Your task to perform on an android device: Open Google Image 0: 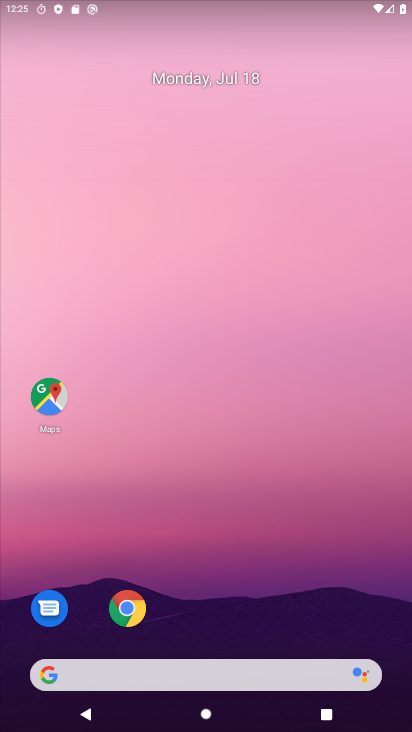
Step 0: drag from (248, 455) to (347, 10)
Your task to perform on an android device: Open Google Image 1: 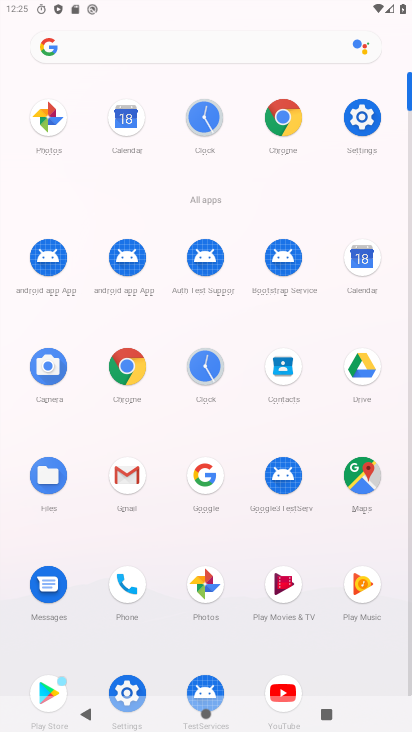
Step 1: click (215, 485)
Your task to perform on an android device: Open Google Image 2: 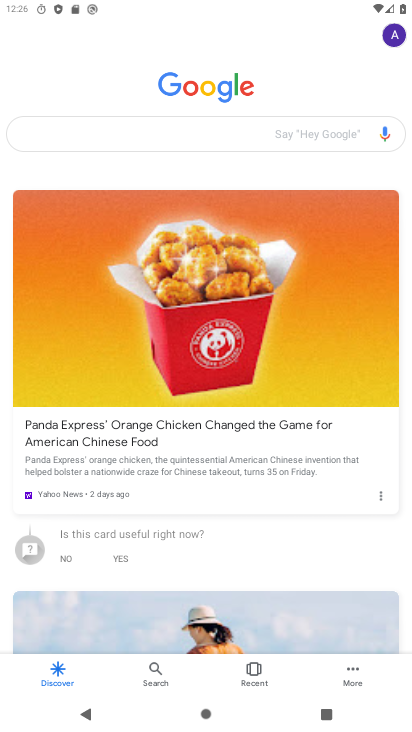
Step 2: task complete